Your task to perform on an android device: Open Chrome and go to settings Image 0: 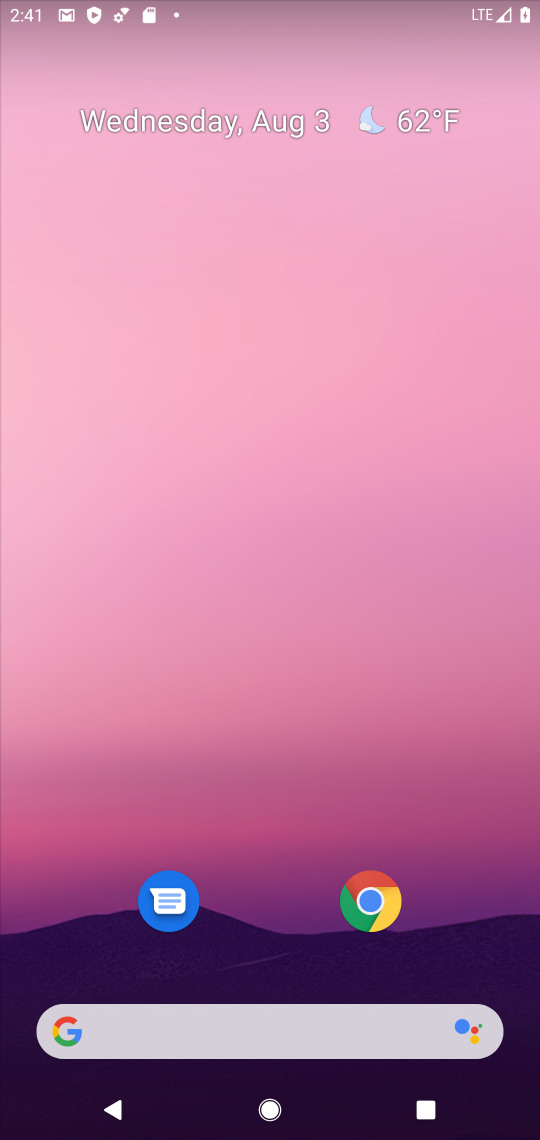
Step 0: drag from (320, 936) to (309, 271)
Your task to perform on an android device: Open Chrome and go to settings Image 1: 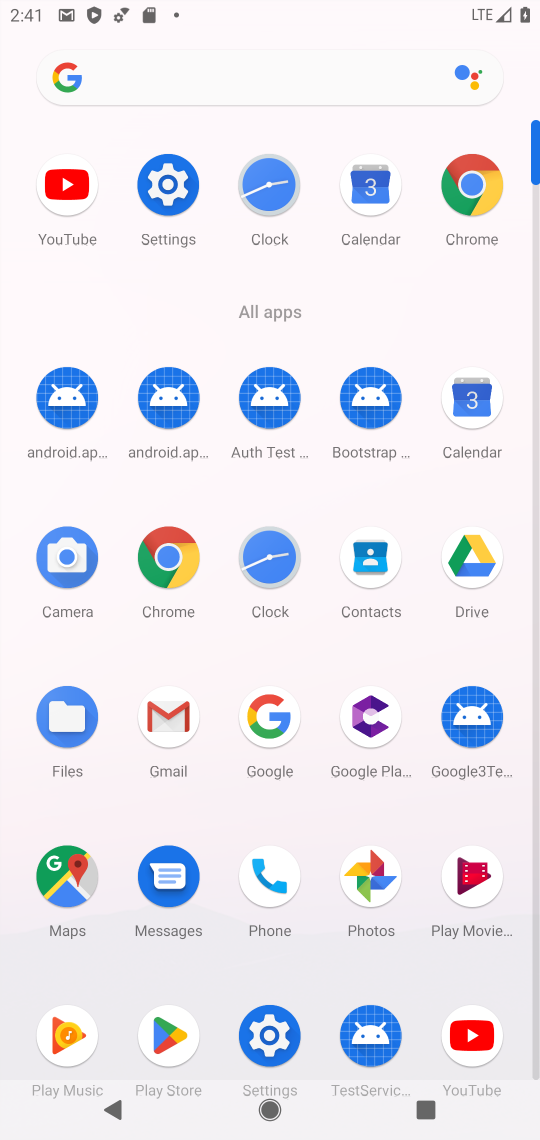
Step 1: click (151, 547)
Your task to perform on an android device: Open Chrome and go to settings Image 2: 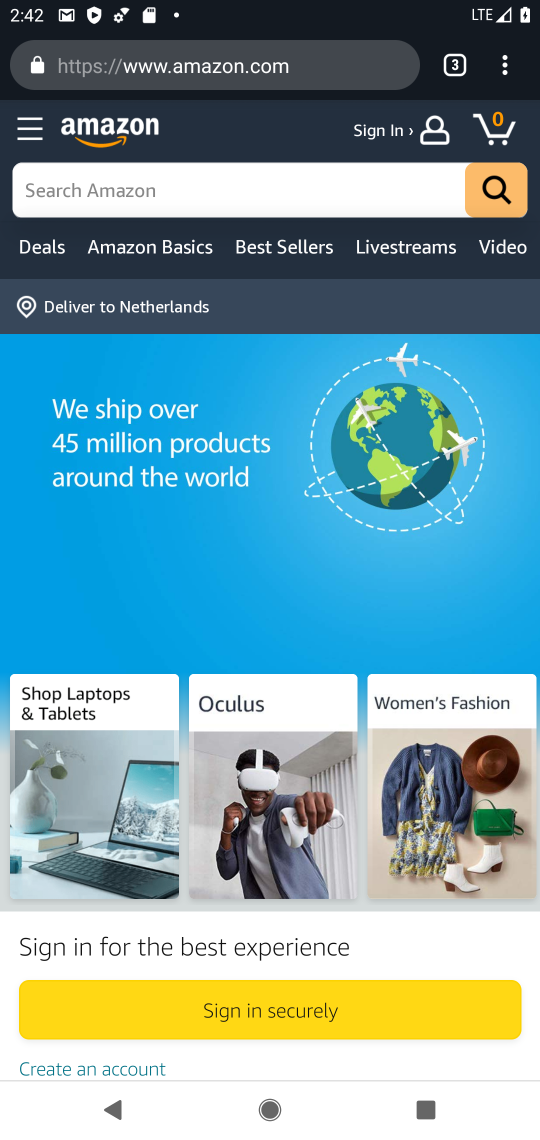
Step 2: click (518, 78)
Your task to perform on an android device: Open Chrome and go to settings Image 3: 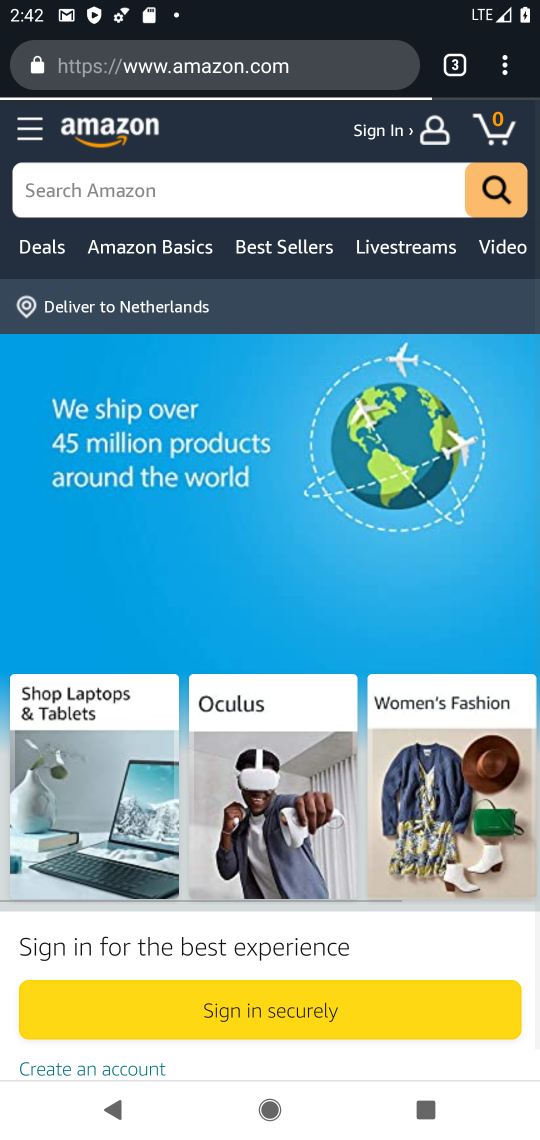
Step 3: click (515, 78)
Your task to perform on an android device: Open Chrome and go to settings Image 4: 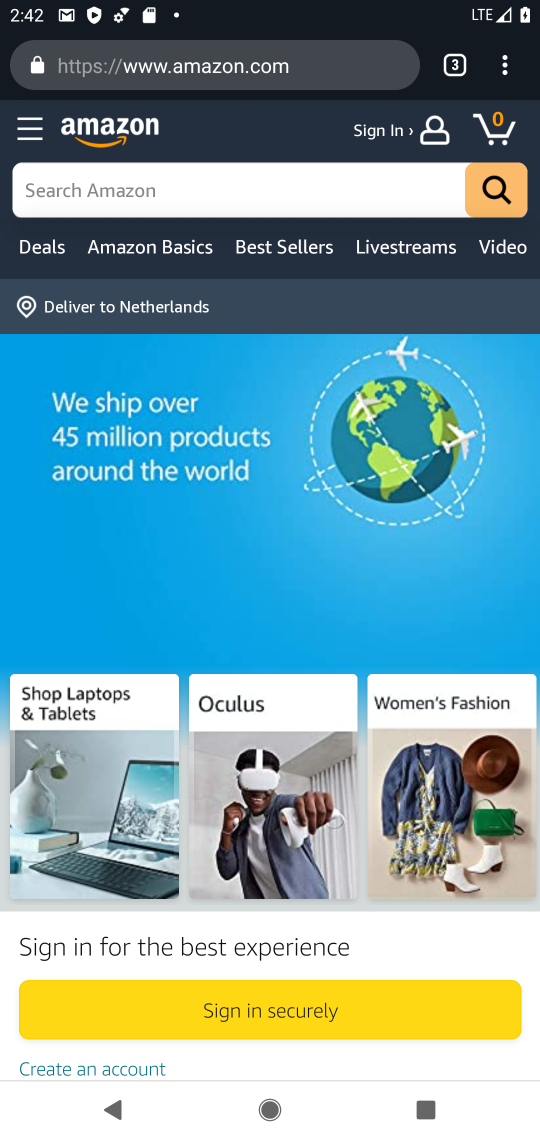
Step 4: click (508, 62)
Your task to perform on an android device: Open Chrome and go to settings Image 5: 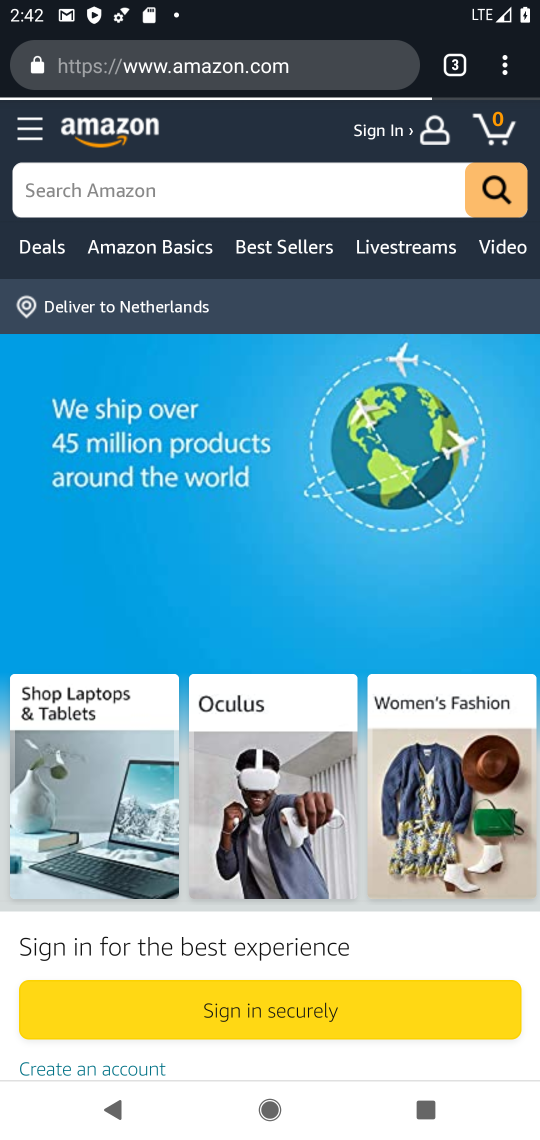
Step 5: click (510, 64)
Your task to perform on an android device: Open Chrome and go to settings Image 6: 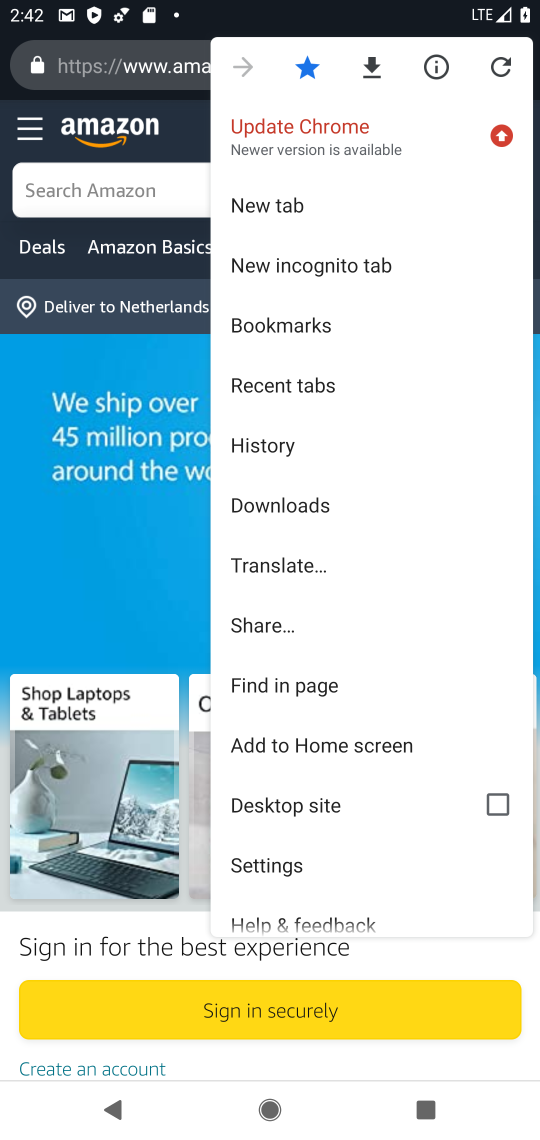
Step 6: click (267, 858)
Your task to perform on an android device: Open Chrome and go to settings Image 7: 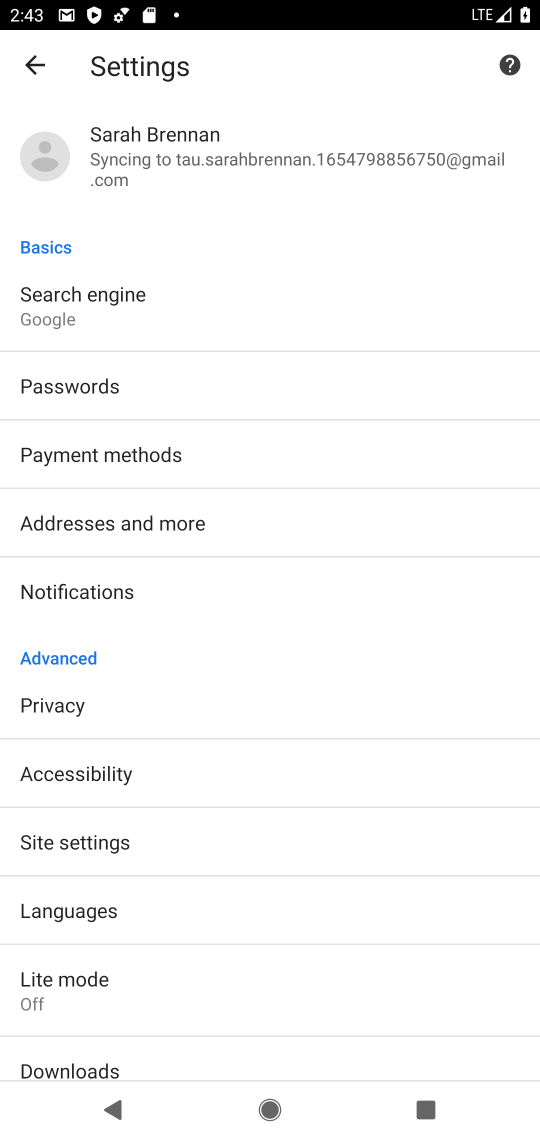
Step 7: task complete